Your task to perform on an android device: toggle pop-ups in chrome Image 0: 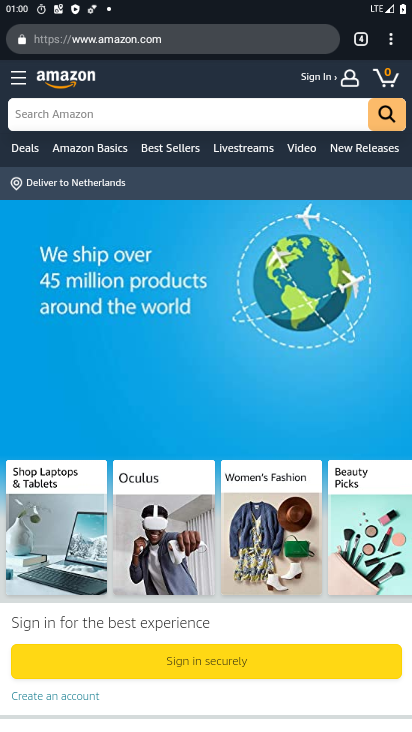
Step 0: drag from (397, 45) to (260, 475)
Your task to perform on an android device: toggle pop-ups in chrome Image 1: 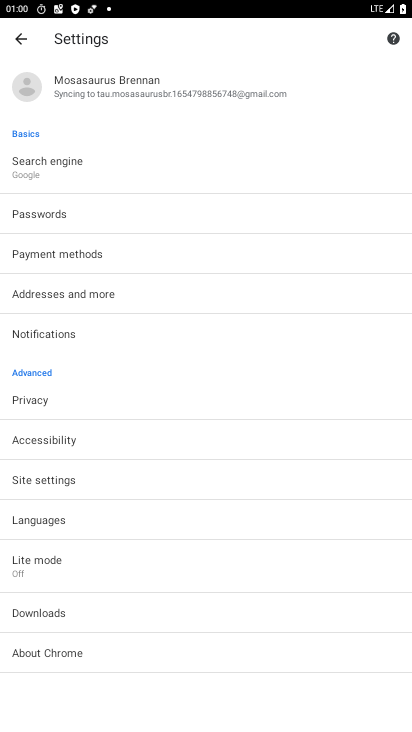
Step 1: click (51, 483)
Your task to perform on an android device: toggle pop-ups in chrome Image 2: 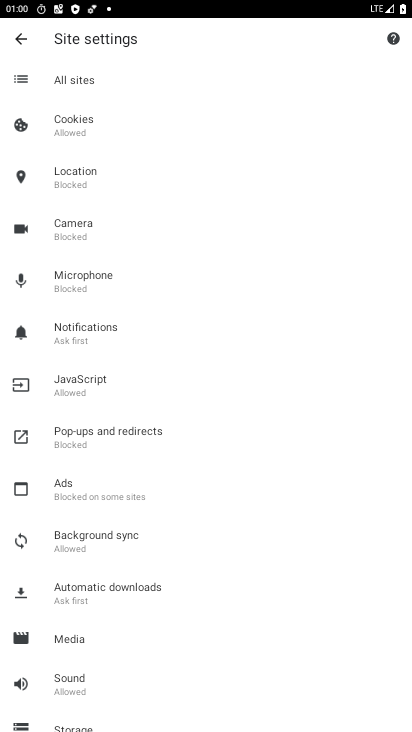
Step 2: click (98, 432)
Your task to perform on an android device: toggle pop-ups in chrome Image 3: 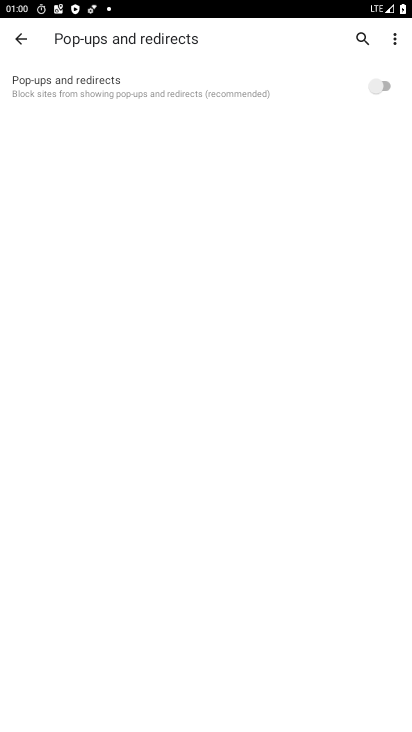
Step 3: click (383, 77)
Your task to perform on an android device: toggle pop-ups in chrome Image 4: 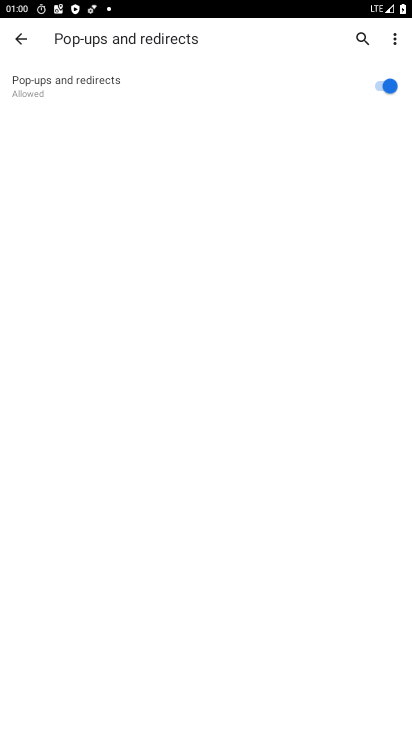
Step 4: task complete